Your task to perform on an android device: See recent photos Image 0: 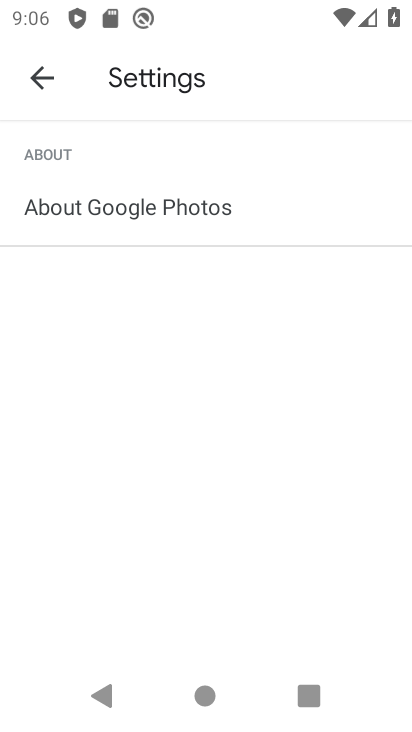
Step 0: press home button
Your task to perform on an android device: See recent photos Image 1: 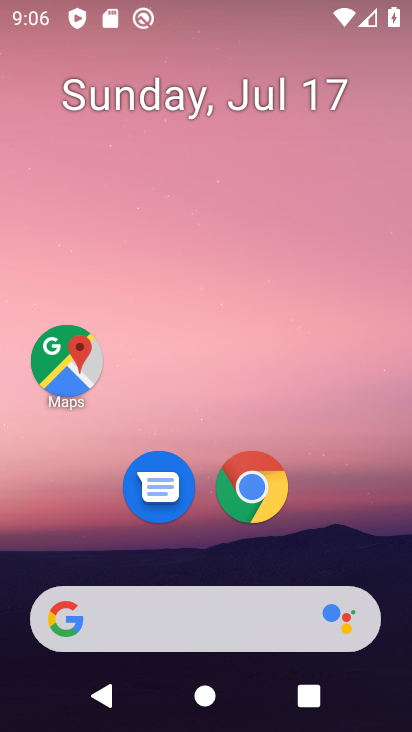
Step 1: drag from (390, 509) to (389, 153)
Your task to perform on an android device: See recent photos Image 2: 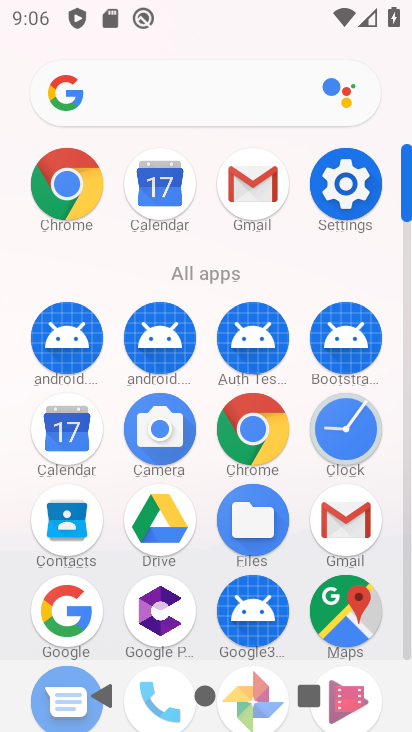
Step 2: click (179, 363)
Your task to perform on an android device: See recent photos Image 3: 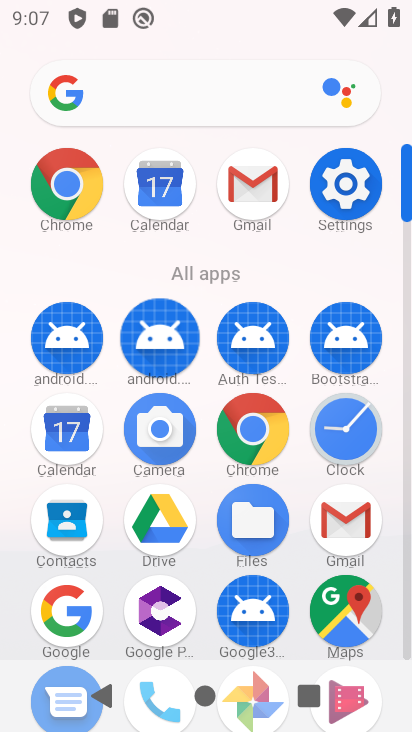
Step 3: drag from (391, 614) to (382, 321)
Your task to perform on an android device: See recent photos Image 4: 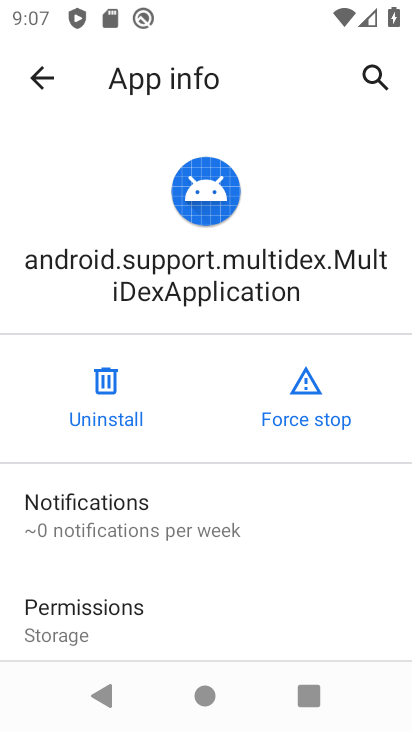
Step 4: click (40, 78)
Your task to perform on an android device: See recent photos Image 5: 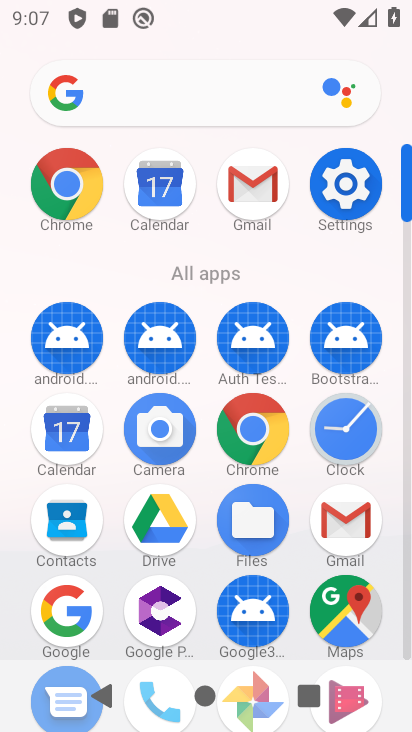
Step 5: drag from (198, 636) to (275, 163)
Your task to perform on an android device: See recent photos Image 6: 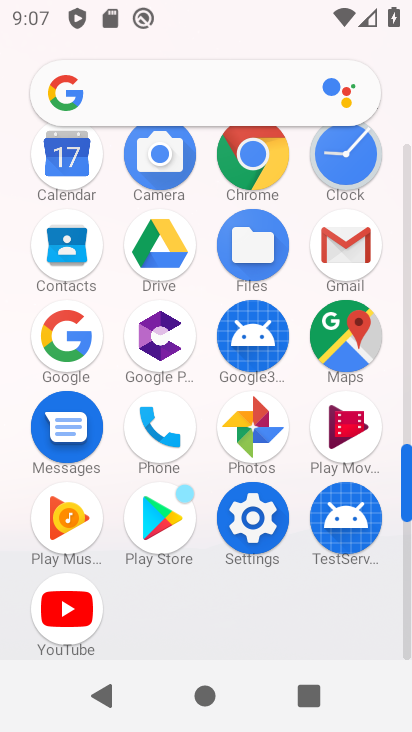
Step 6: click (273, 434)
Your task to perform on an android device: See recent photos Image 7: 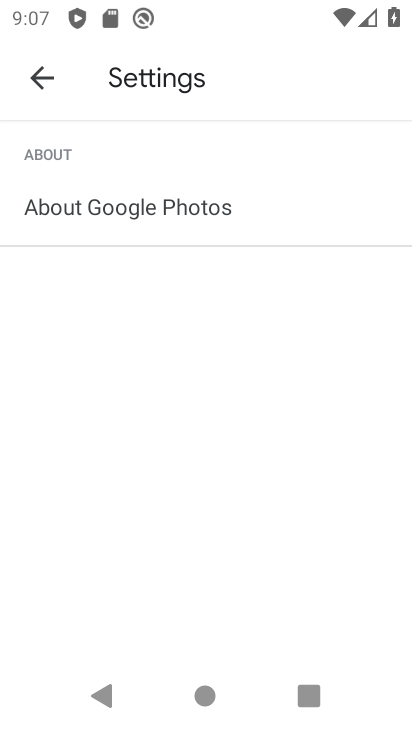
Step 7: click (50, 70)
Your task to perform on an android device: See recent photos Image 8: 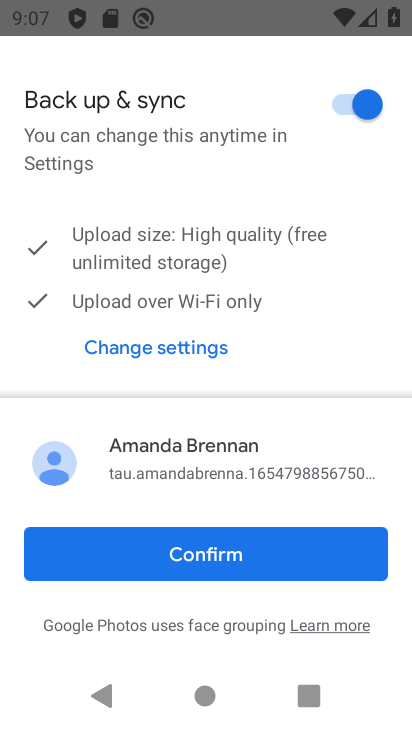
Step 8: click (189, 554)
Your task to perform on an android device: See recent photos Image 9: 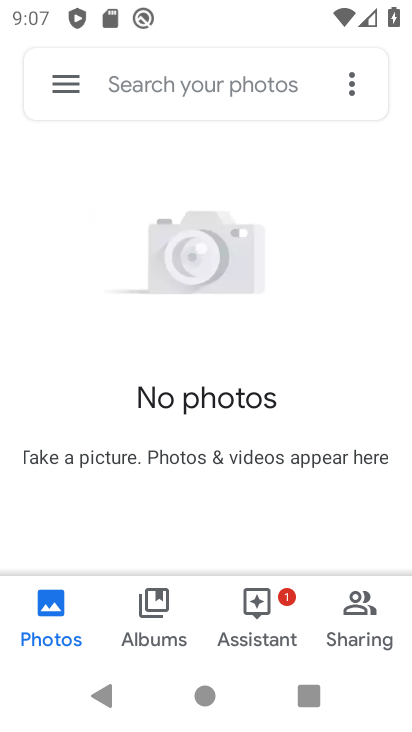
Step 9: task complete